Your task to perform on an android device: check google app version Image 0: 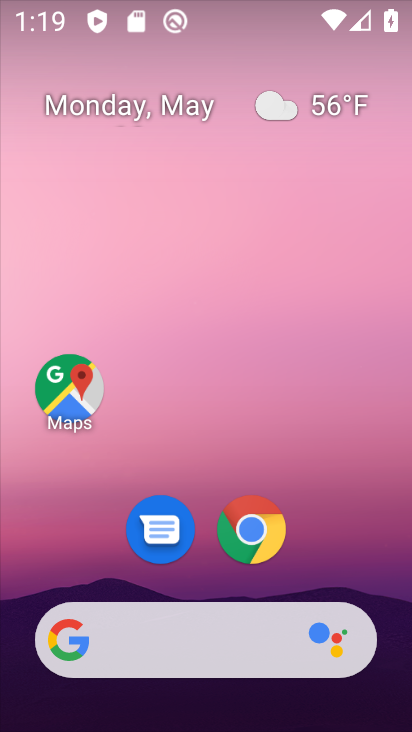
Step 0: drag from (298, 573) to (232, 163)
Your task to perform on an android device: check google app version Image 1: 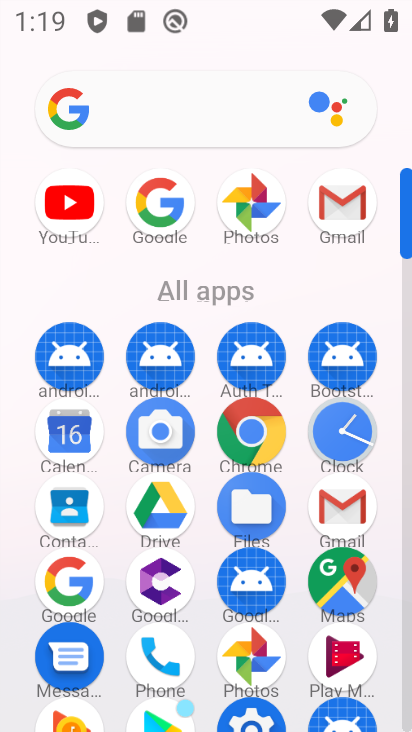
Step 1: click (70, 594)
Your task to perform on an android device: check google app version Image 2: 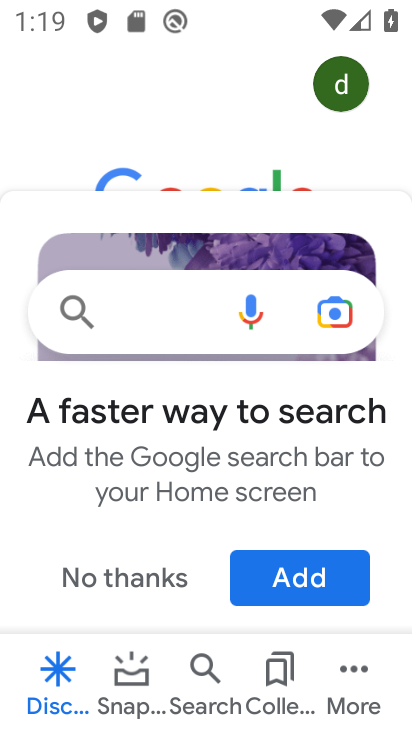
Step 2: click (352, 675)
Your task to perform on an android device: check google app version Image 3: 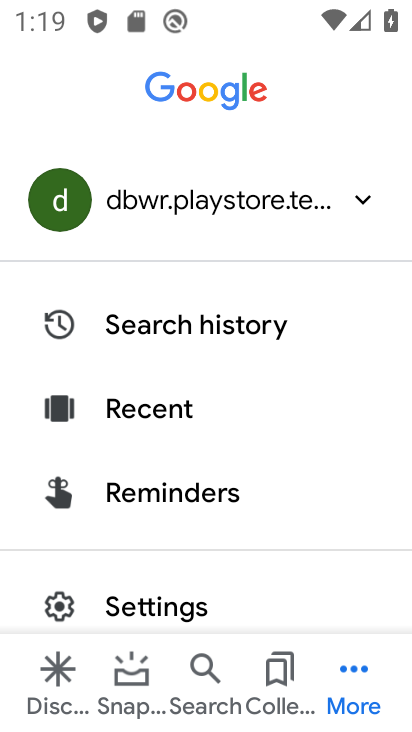
Step 3: drag from (133, 610) to (120, 303)
Your task to perform on an android device: check google app version Image 4: 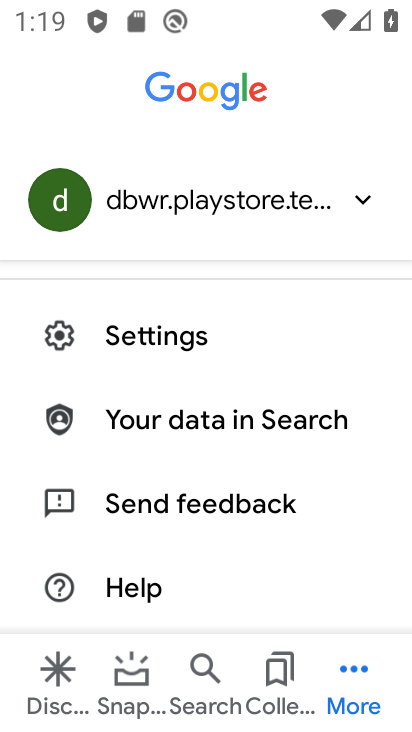
Step 4: drag from (190, 494) to (184, 331)
Your task to perform on an android device: check google app version Image 5: 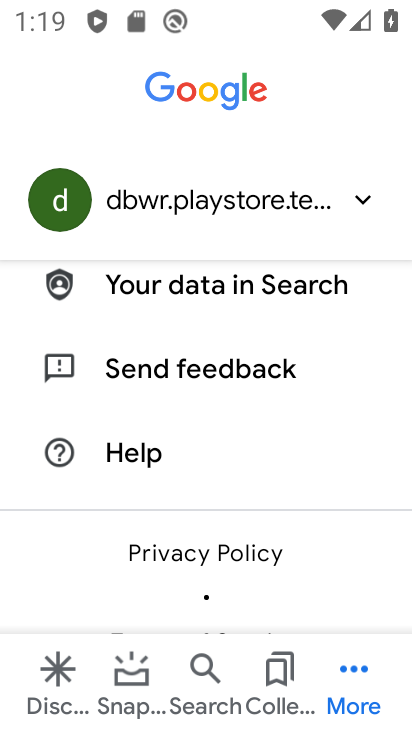
Step 5: drag from (179, 310) to (225, 477)
Your task to perform on an android device: check google app version Image 6: 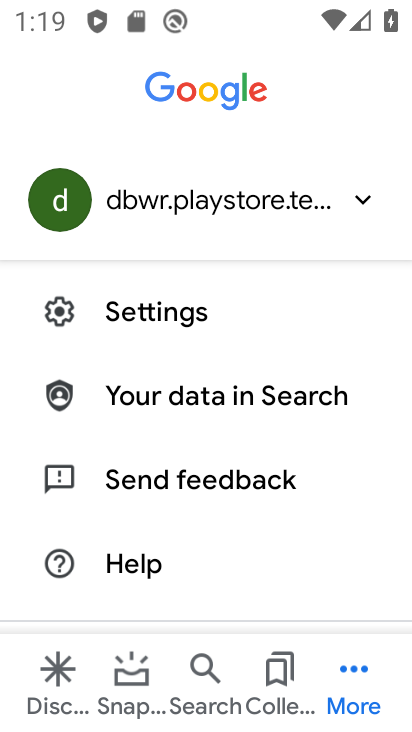
Step 6: click (172, 312)
Your task to perform on an android device: check google app version Image 7: 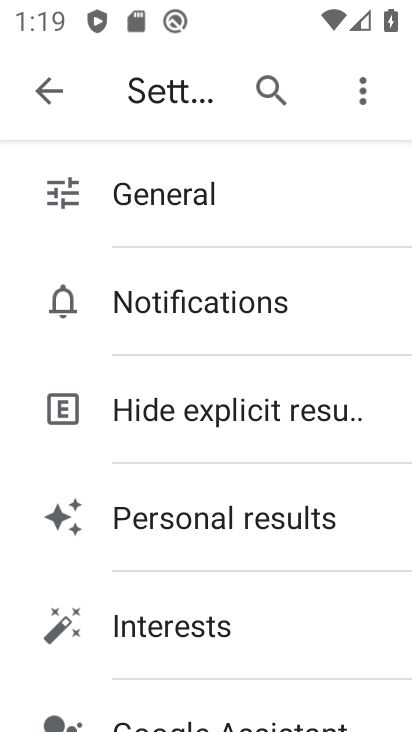
Step 7: drag from (242, 661) to (179, 243)
Your task to perform on an android device: check google app version Image 8: 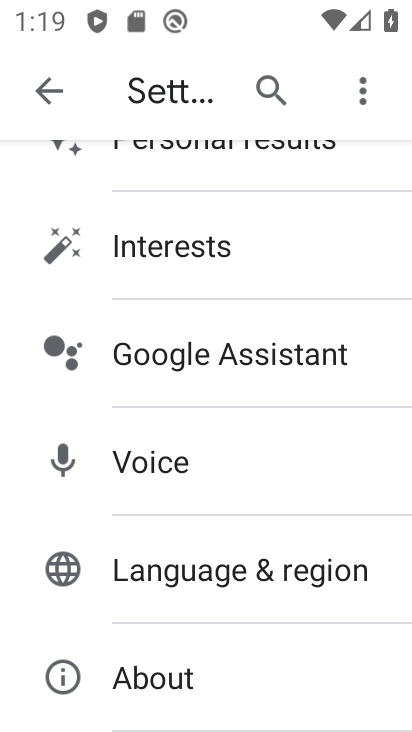
Step 8: click (162, 672)
Your task to perform on an android device: check google app version Image 9: 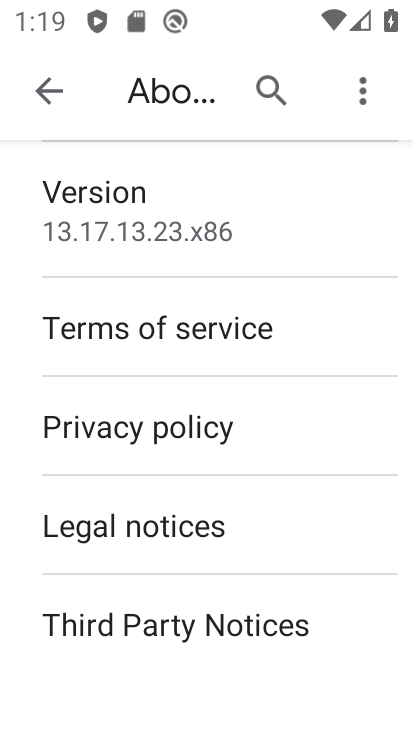
Step 9: click (157, 223)
Your task to perform on an android device: check google app version Image 10: 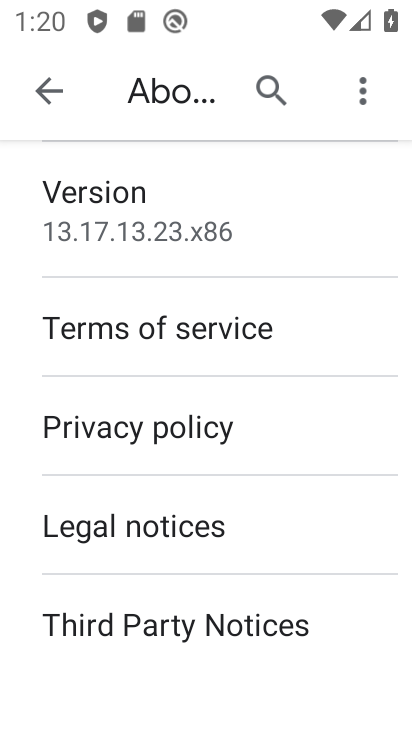
Step 10: task complete